Your task to perform on an android device: Look up the best rated gaming chairs on Target. Image 0: 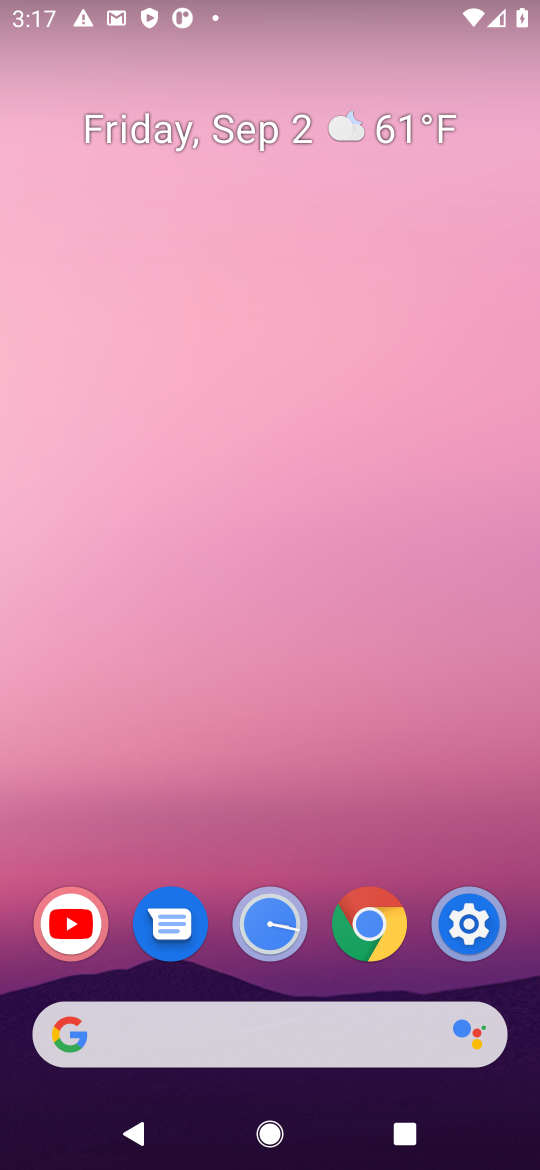
Step 0: press home button
Your task to perform on an android device: Look up the best rated gaming chairs on Target. Image 1: 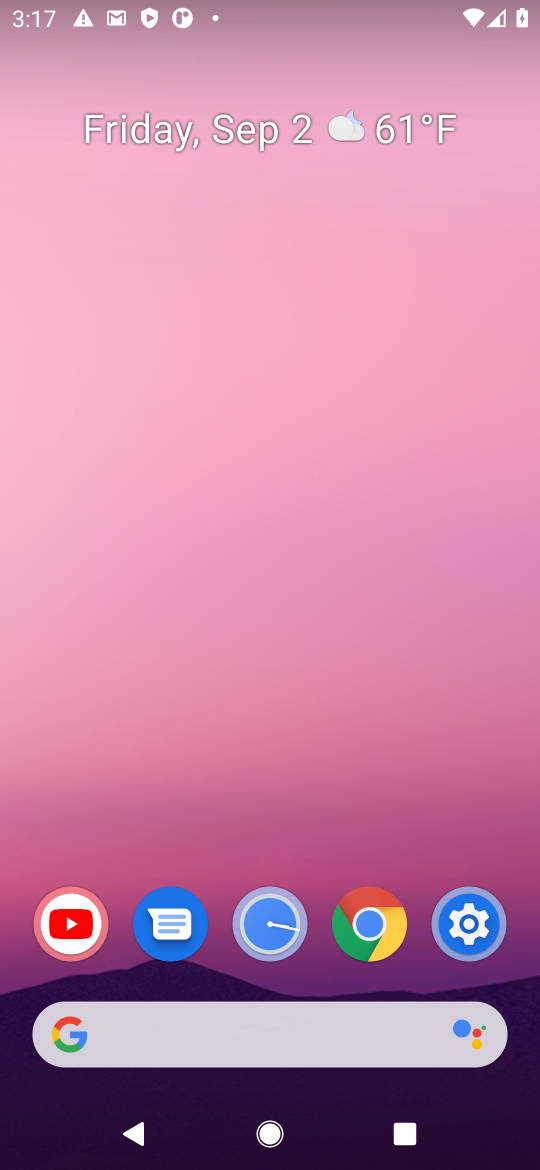
Step 1: click (386, 1026)
Your task to perform on an android device: Look up the best rated gaming chairs on Target. Image 2: 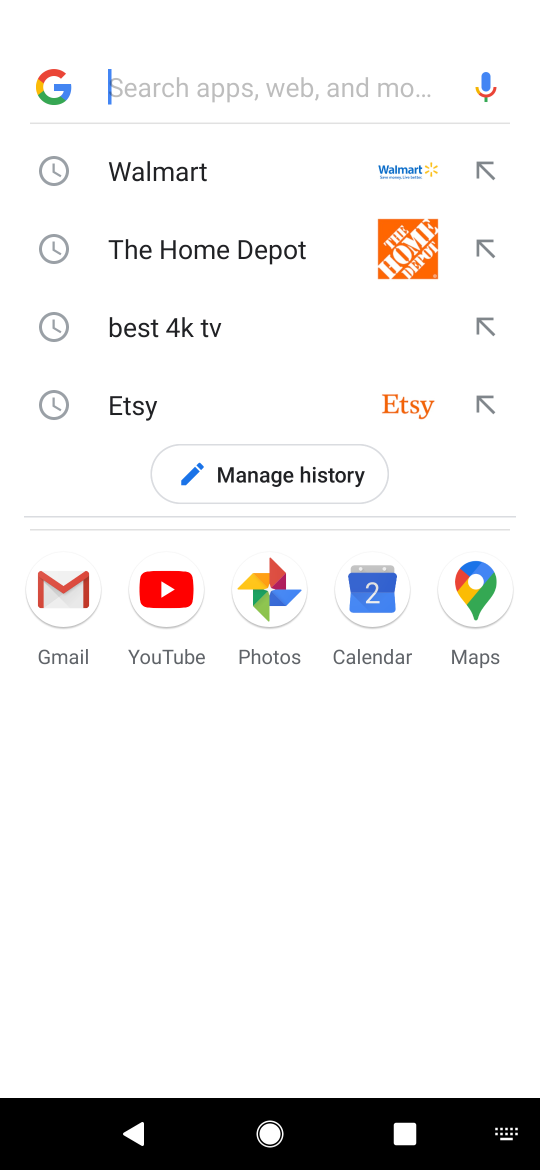
Step 2: press enter
Your task to perform on an android device: Look up the best rated gaming chairs on Target. Image 3: 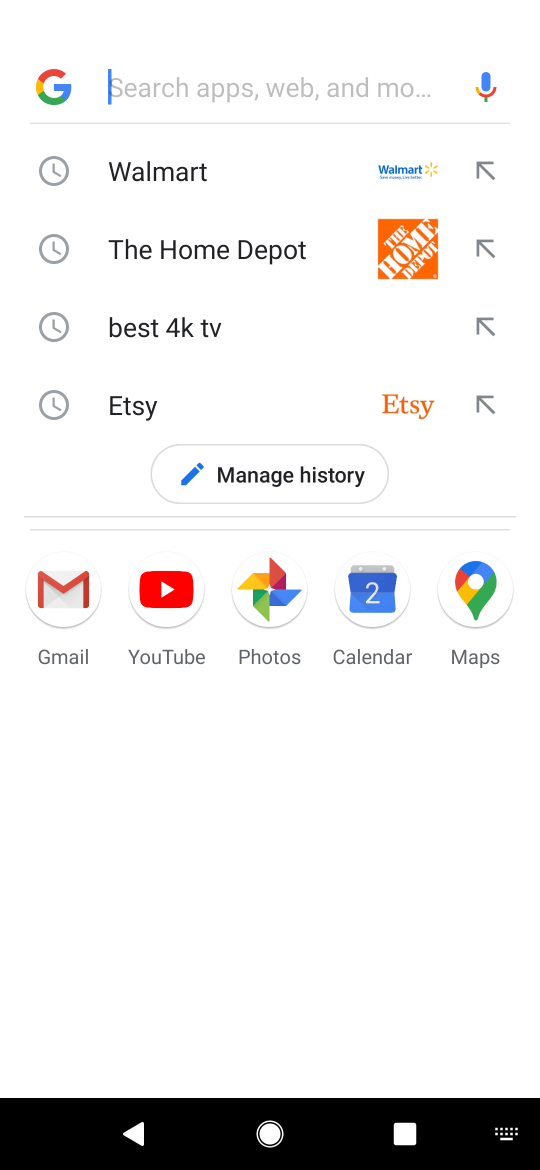
Step 3: type "target"
Your task to perform on an android device: Look up the best rated gaming chairs on Target. Image 4: 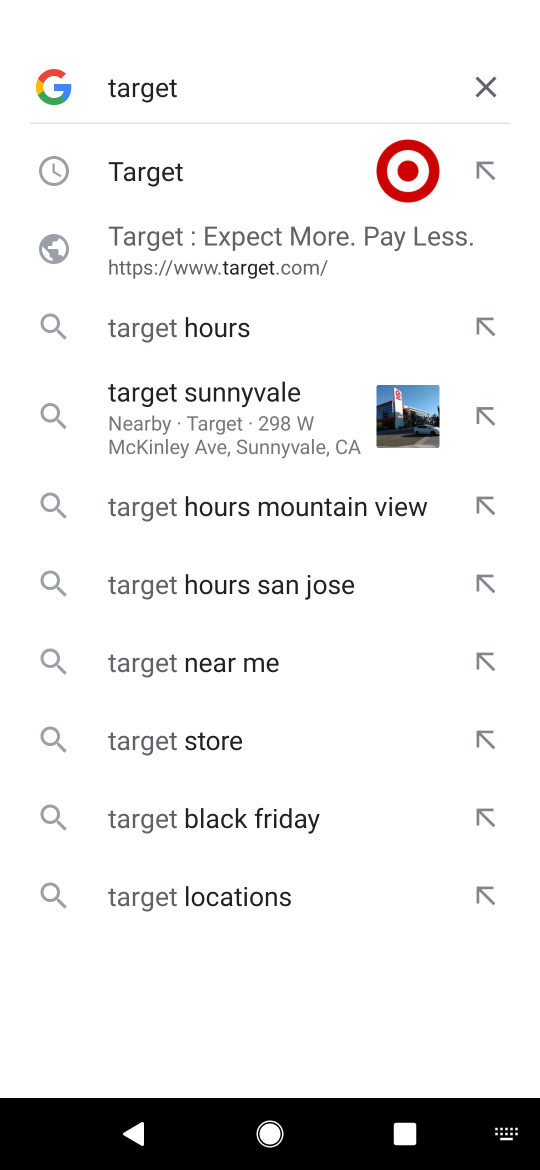
Step 4: click (239, 250)
Your task to perform on an android device: Look up the best rated gaming chairs on Target. Image 5: 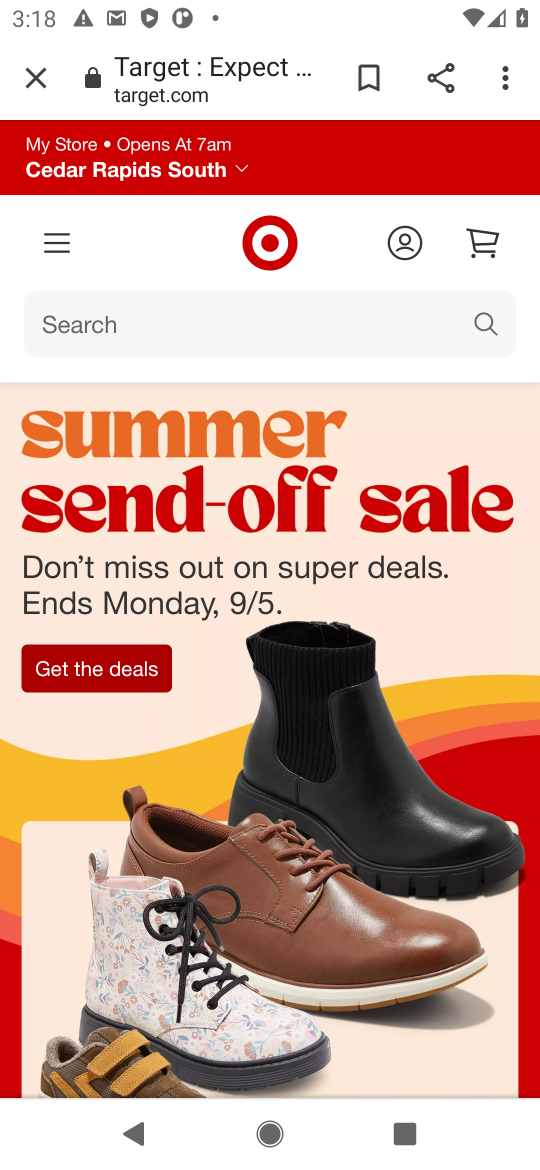
Step 5: click (196, 317)
Your task to perform on an android device: Look up the best rated gaming chairs on Target. Image 6: 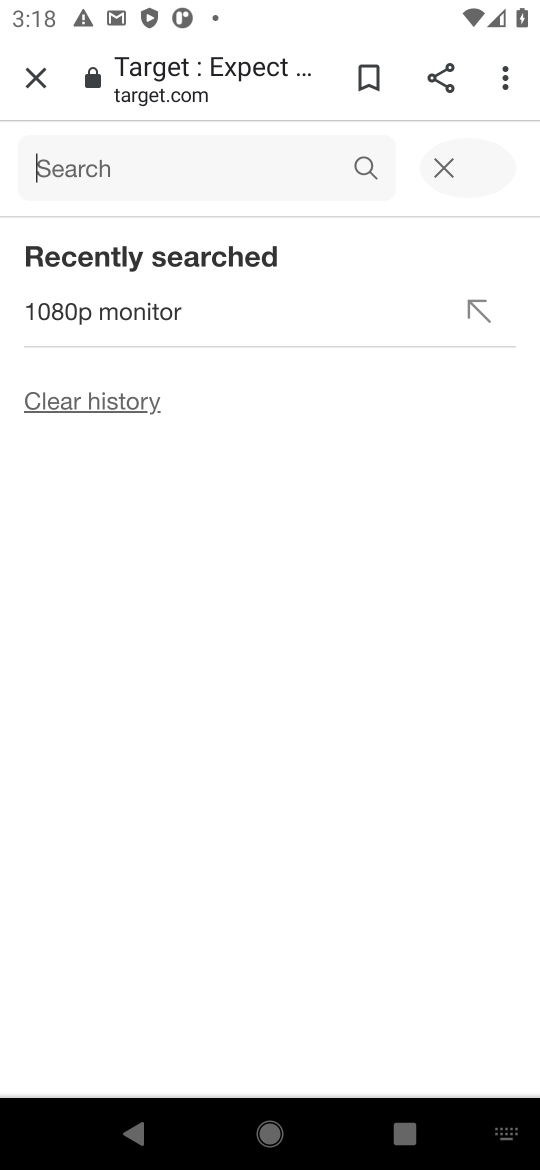
Step 6: press enter
Your task to perform on an android device: Look up the best rated gaming chairs on Target. Image 7: 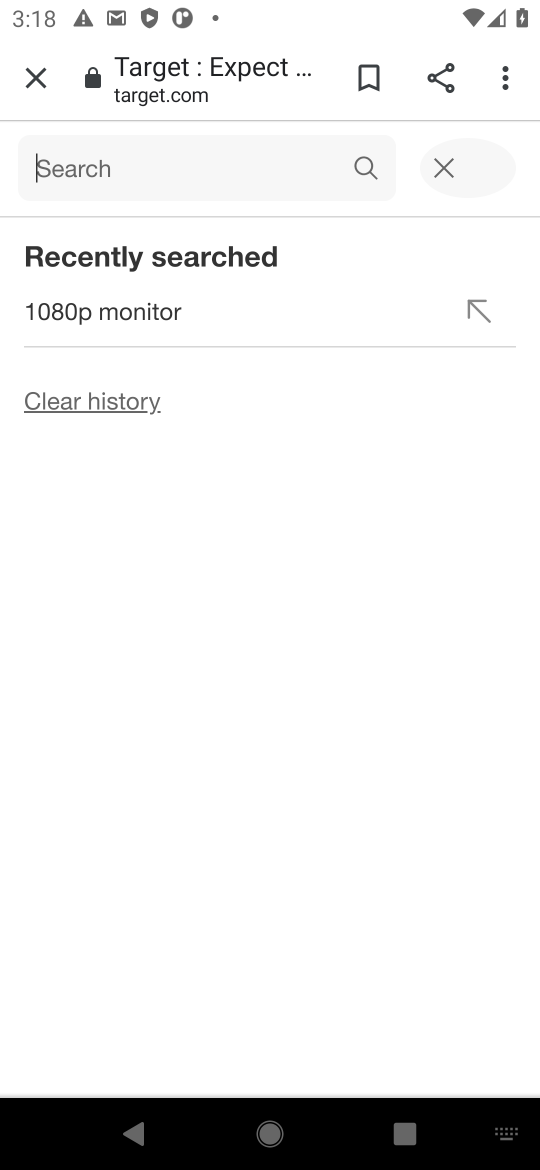
Step 7: type "best rated gaming chairs"
Your task to perform on an android device: Look up the best rated gaming chairs on Target. Image 8: 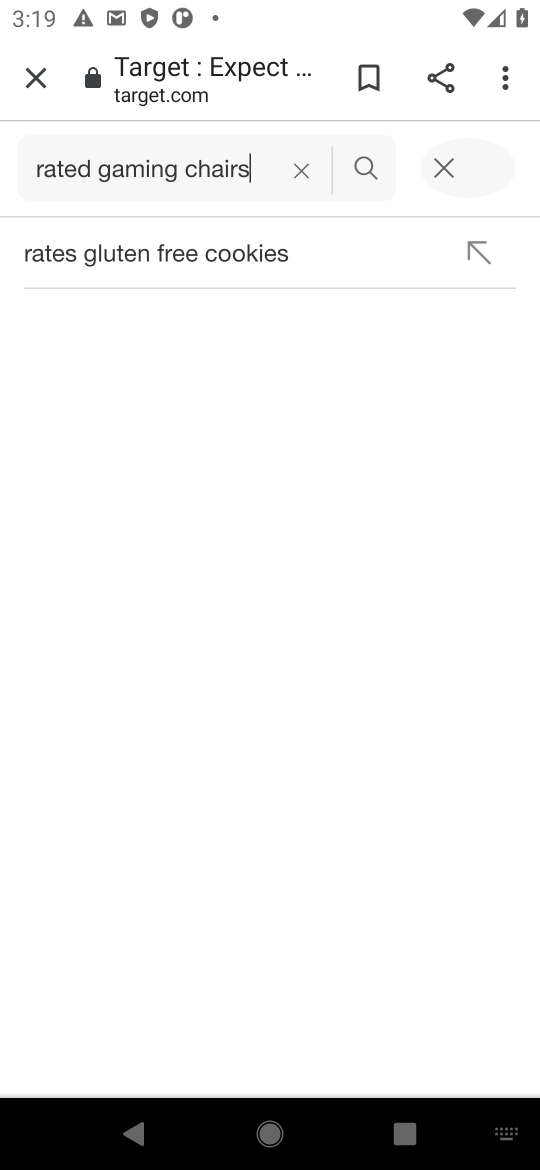
Step 8: click (361, 163)
Your task to perform on an android device: Look up the best rated gaming chairs on Target. Image 9: 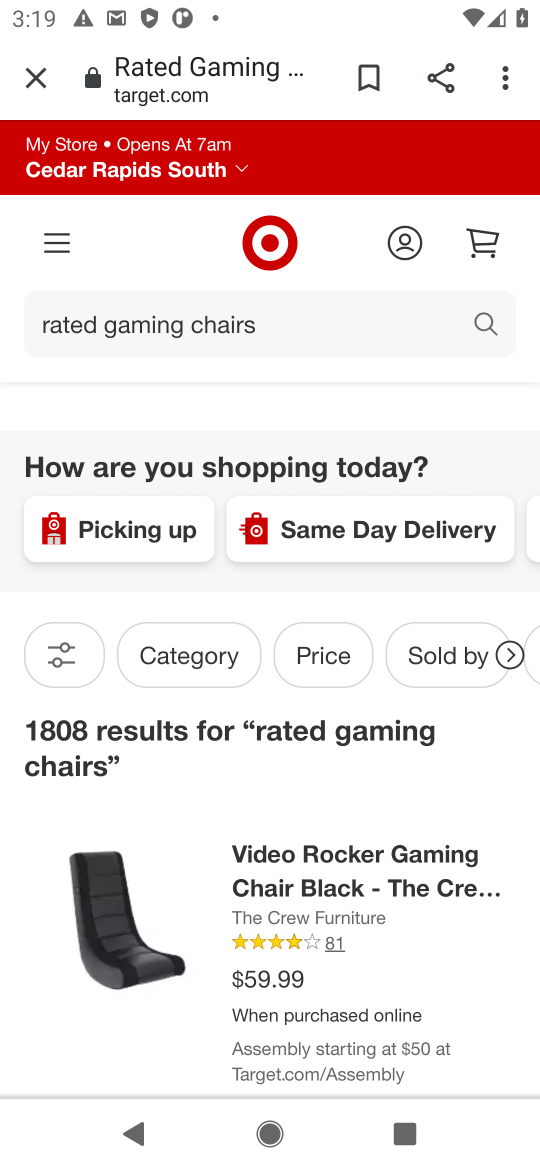
Step 9: task complete